Your task to perform on an android device: toggle location history Image 0: 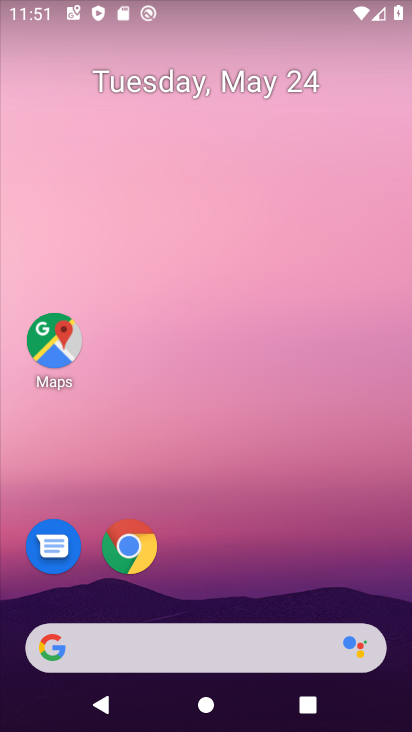
Step 0: drag from (272, 596) to (208, 237)
Your task to perform on an android device: toggle location history Image 1: 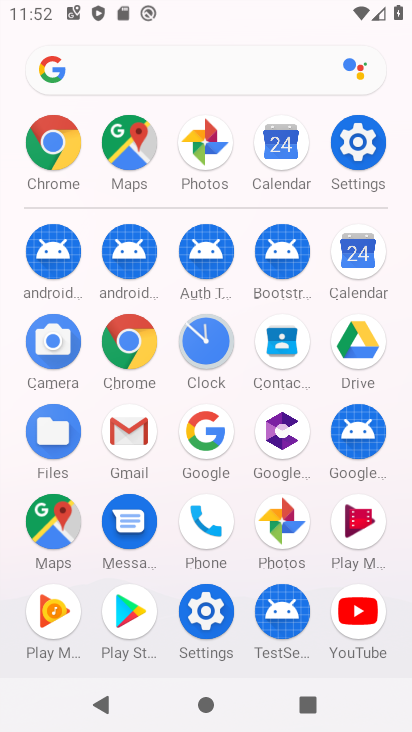
Step 1: click (55, 513)
Your task to perform on an android device: toggle location history Image 2: 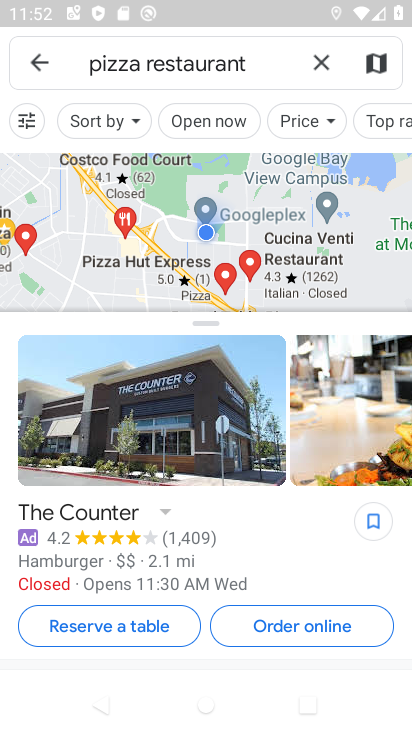
Step 2: click (43, 59)
Your task to perform on an android device: toggle location history Image 3: 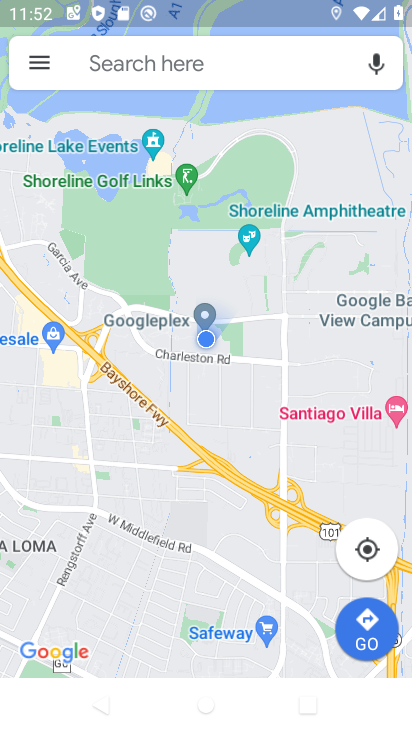
Step 3: click (43, 59)
Your task to perform on an android device: toggle location history Image 4: 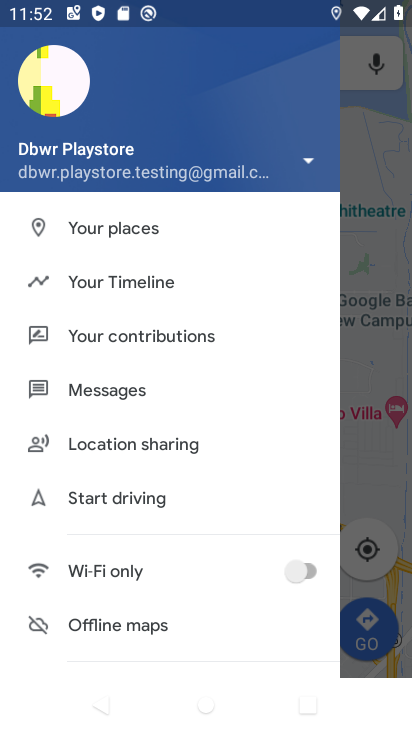
Step 4: click (170, 289)
Your task to perform on an android device: toggle location history Image 5: 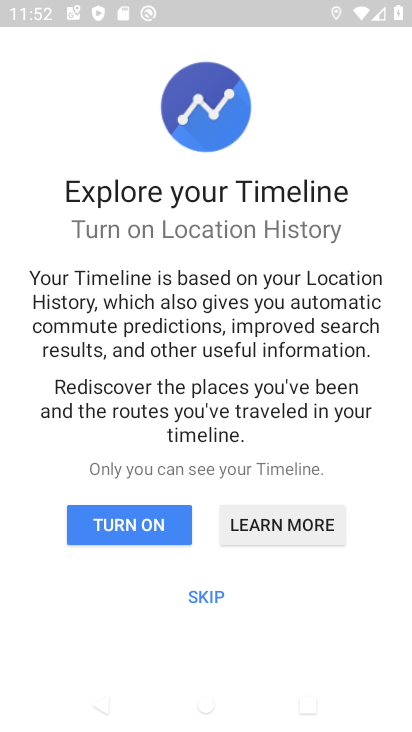
Step 5: click (202, 593)
Your task to perform on an android device: toggle location history Image 6: 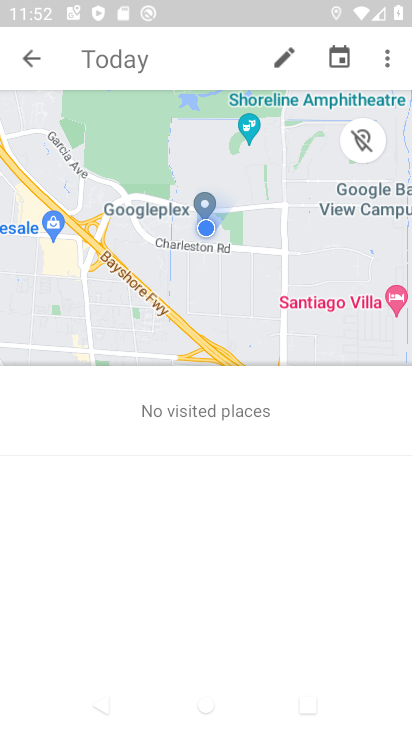
Step 6: click (396, 59)
Your task to perform on an android device: toggle location history Image 7: 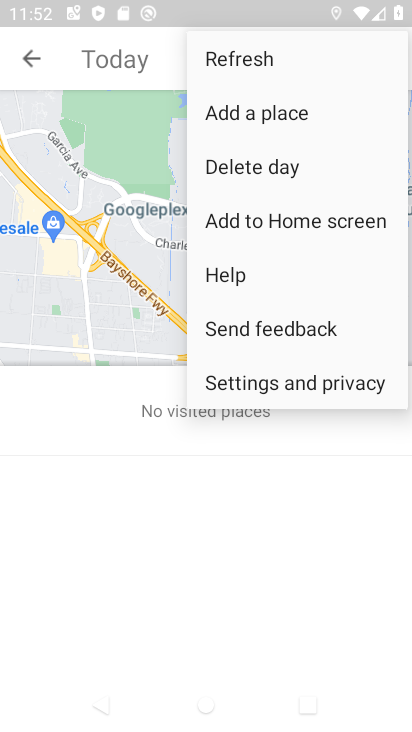
Step 7: click (349, 390)
Your task to perform on an android device: toggle location history Image 8: 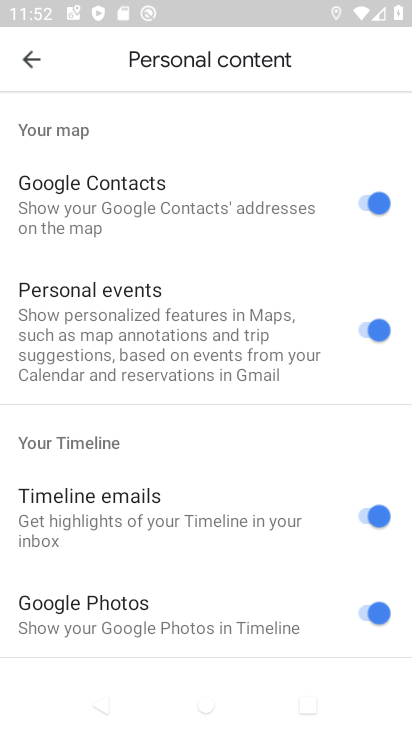
Step 8: drag from (273, 578) to (220, 222)
Your task to perform on an android device: toggle location history Image 9: 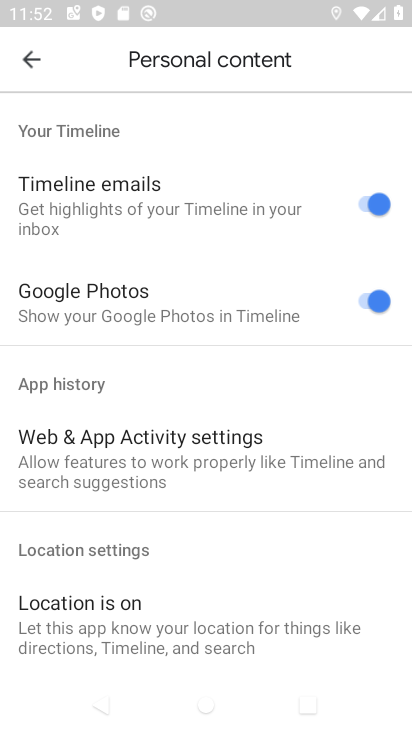
Step 9: drag from (188, 572) to (164, 338)
Your task to perform on an android device: toggle location history Image 10: 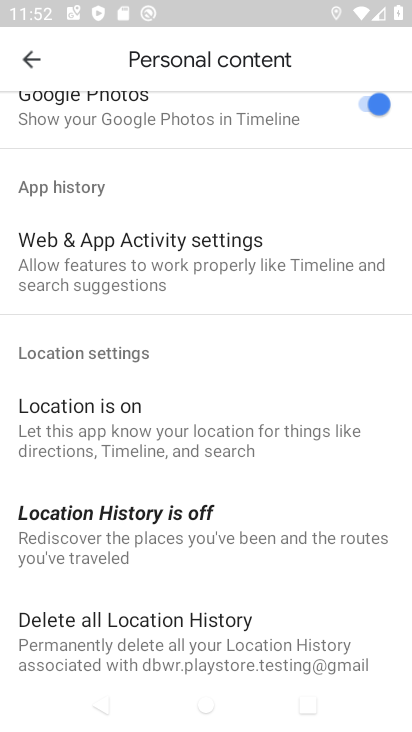
Step 10: click (193, 516)
Your task to perform on an android device: toggle location history Image 11: 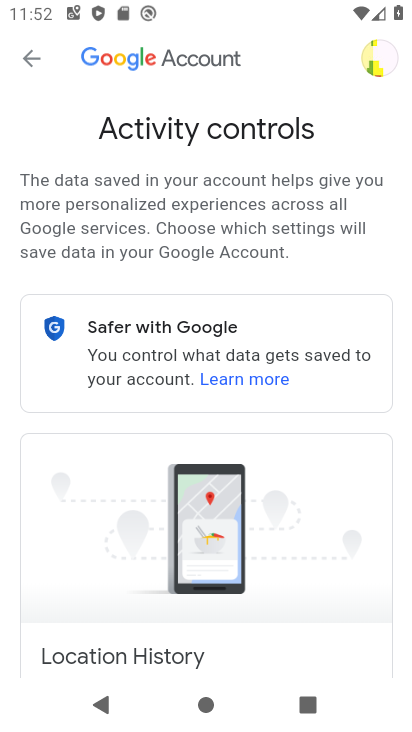
Step 11: drag from (230, 595) to (211, 178)
Your task to perform on an android device: toggle location history Image 12: 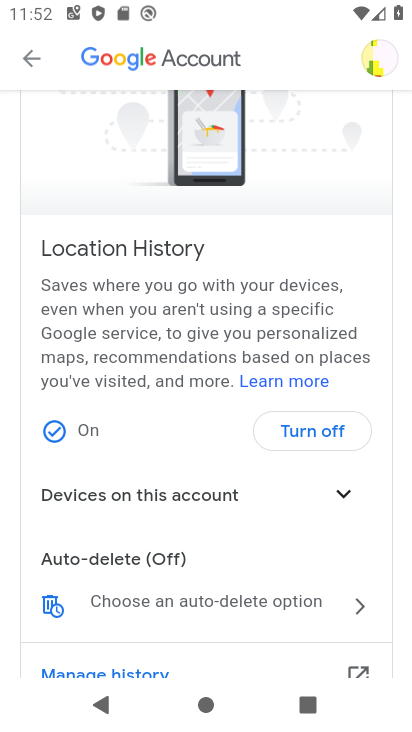
Step 12: click (319, 427)
Your task to perform on an android device: toggle location history Image 13: 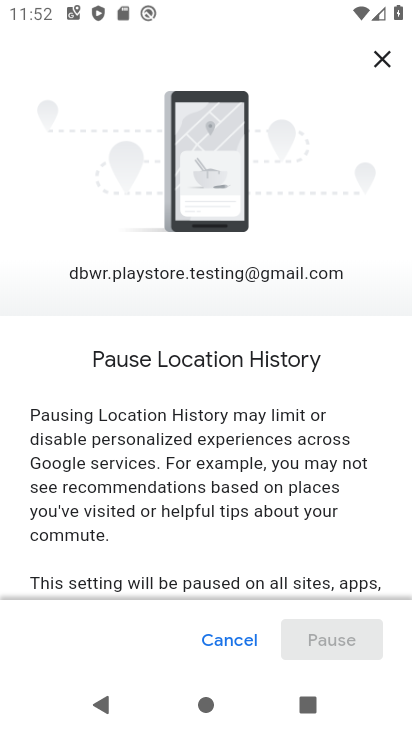
Step 13: drag from (326, 571) to (230, 104)
Your task to perform on an android device: toggle location history Image 14: 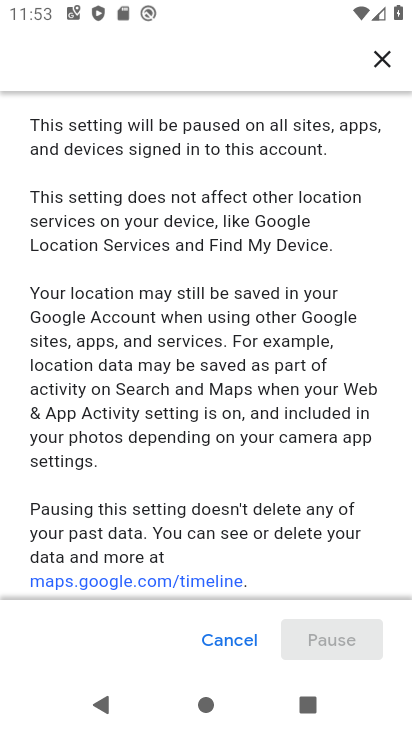
Step 14: drag from (333, 579) to (271, 228)
Your task to perform on an android device: toggle location history Image 15: 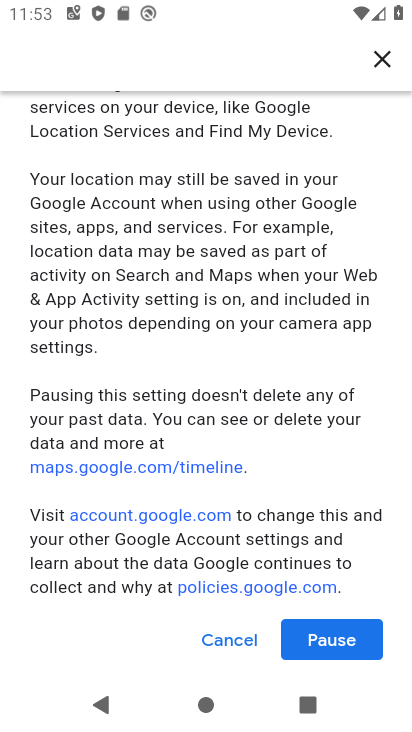
Step 15: click (345, 652)
Your task to perform on an android device: toggle location history Image 16: 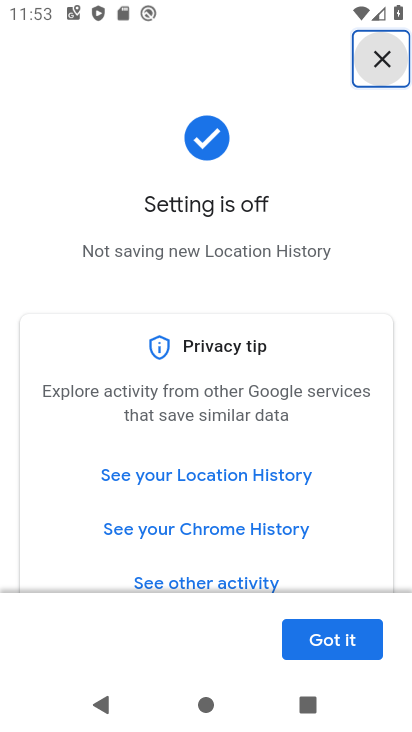
Step 16: click (317, 639)
Your task to perform on an android device: toggle location history Image 17: 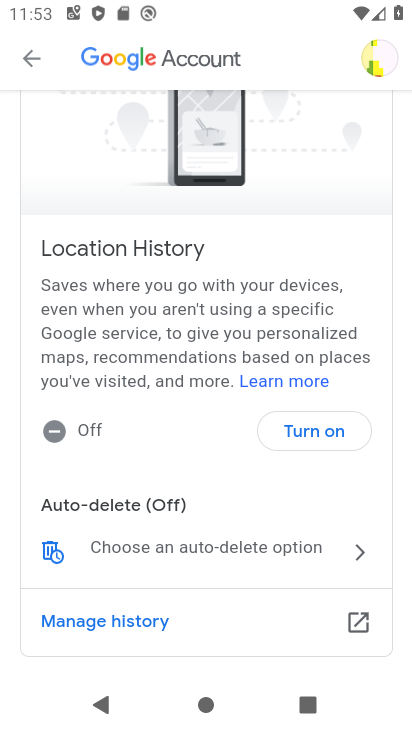
Step 17: task complete